Your task to perform on an android device: turn off data saver in the chrome app Image 0: 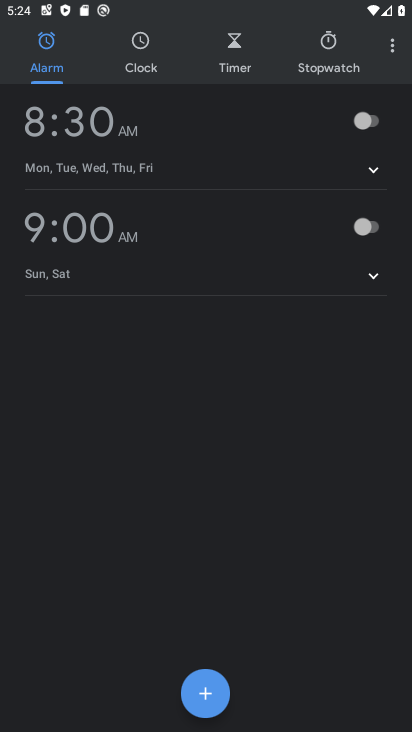
Step 0: press back button
Your task to perform on an android device: turn off data saver in the chrome app Image 1: 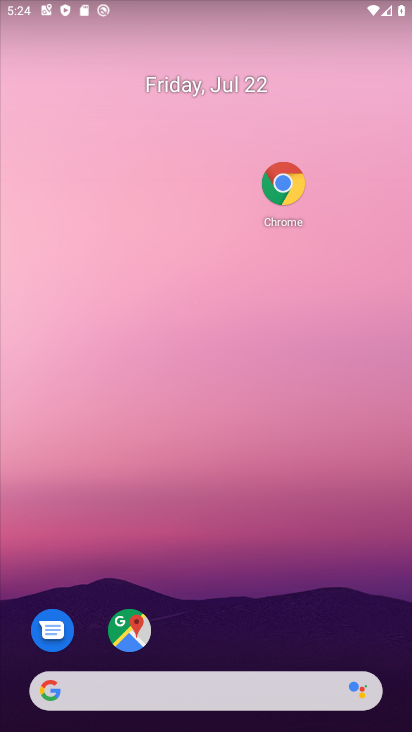
Step 1: click (283, 179)
Your task to perform on an android device: turn off data saver in the chrome app Image 2: 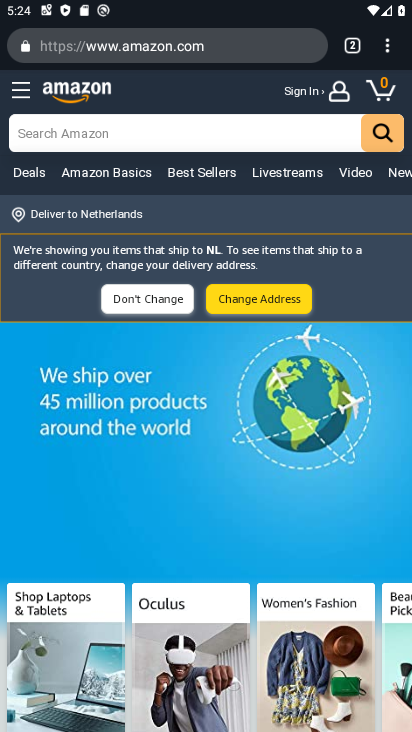
Step 2: click (386, 50)
Your task to perform on an android device: turn off data saver in the chrome app Image 3: 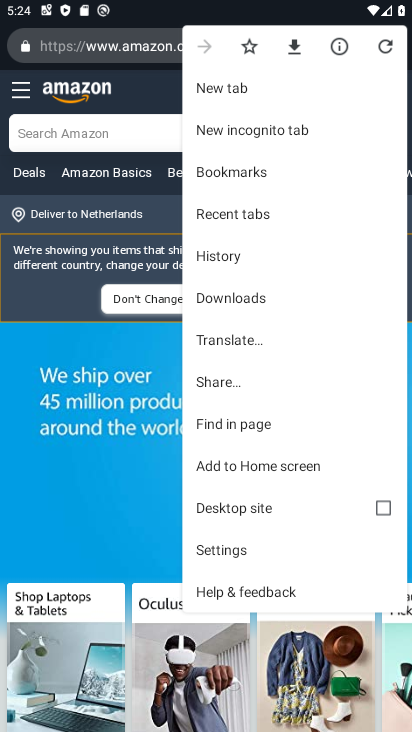
Step 3: click (216, 557)
Your task to perform on an android device: turn off data saver in the chrome app Image 4: 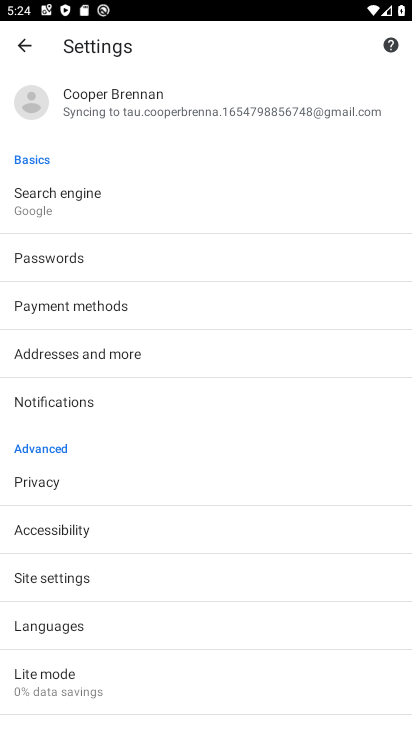
Step 4: click (69, 679)
Your task to perform on an android device: turn off data saver in the chrome app Image 5: 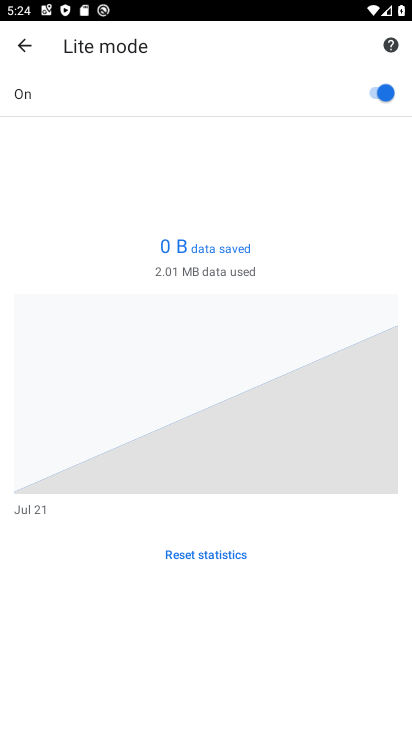
Step 5: click (368, 96)
Your task to perform on an android device: turn off data saver in the chrome app Image 6: 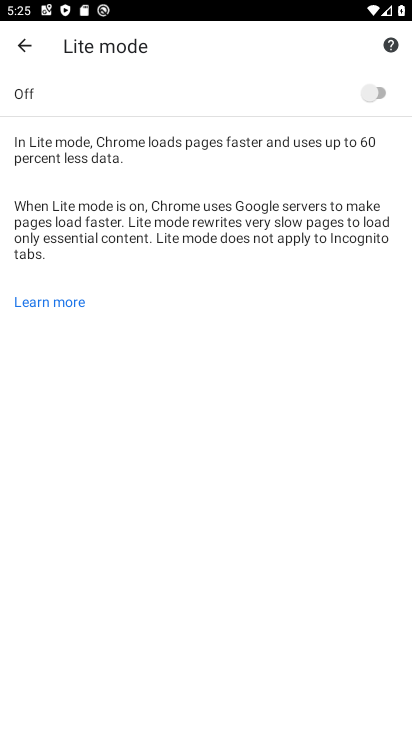
Step 6: task complete